Your task to perform on an android device: Check the weather Image 0: 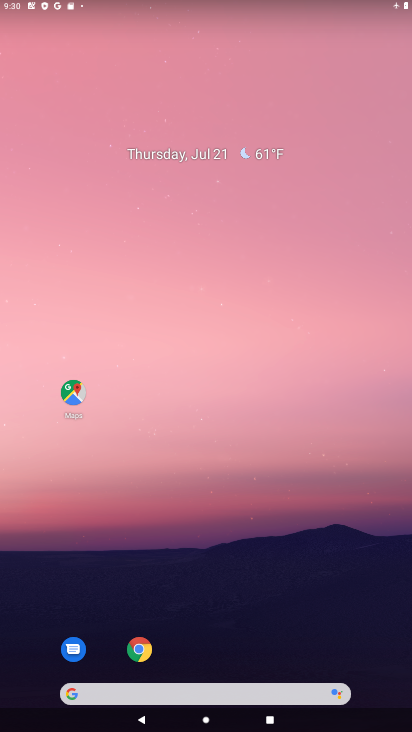
Step 0: drag from (192, 690) to (252, 166)
Your task to perform on an android device: Check the weather Image 1: 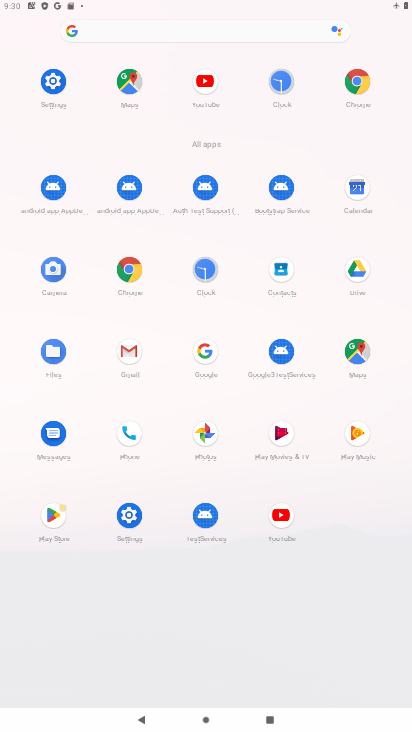
Step 1: click (204, 350)
Your task to perform on an android device: Check the weather Image 2: 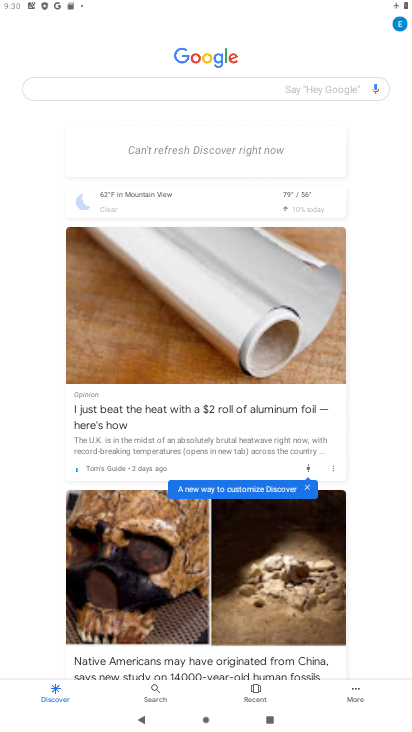
Step 2: click (222, 90)
Your task to perform on an android device: Check the weather Image 3: 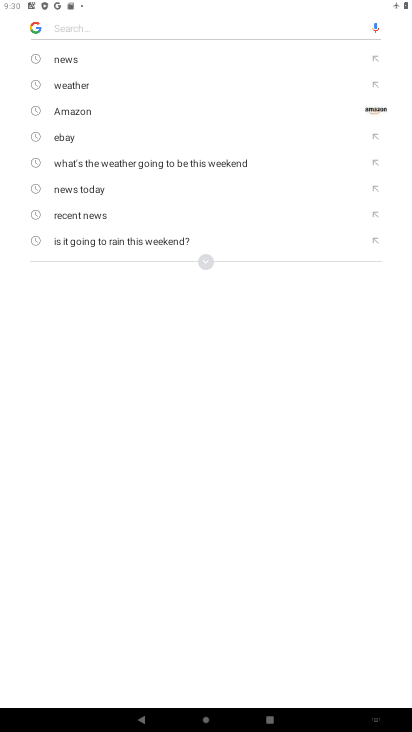
Step 3: click (75, 85)
Your task to perform on an android device: Check the weather Image 4: 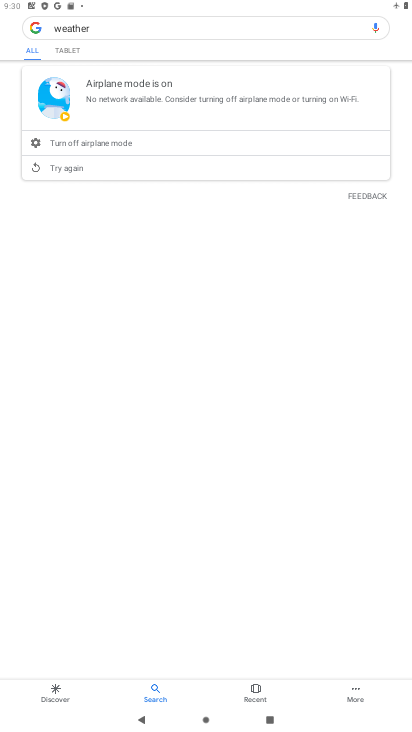
Step 4: task complete